Your task to perform on an android device: add a contact Image 0: 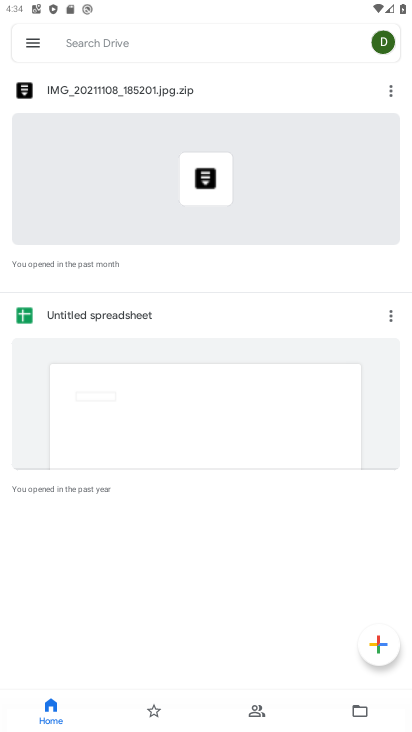
Step 0: press home button
Your task to perform on an android device: add a contact Image 1: 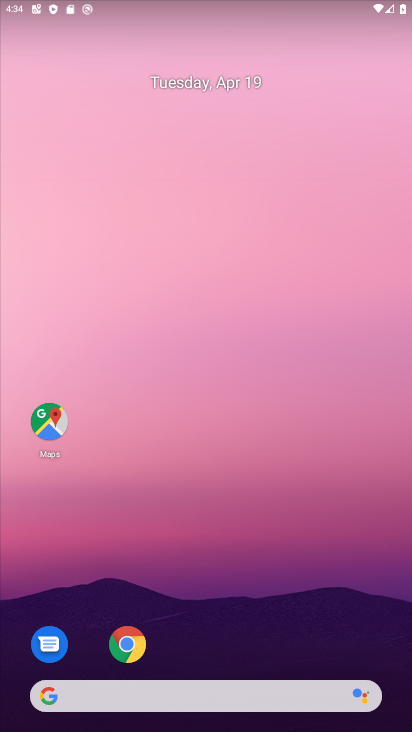
Step 1: drag from (241, 413) to (279, 248)
Your task to perform on an android device: add a contact Image 2: 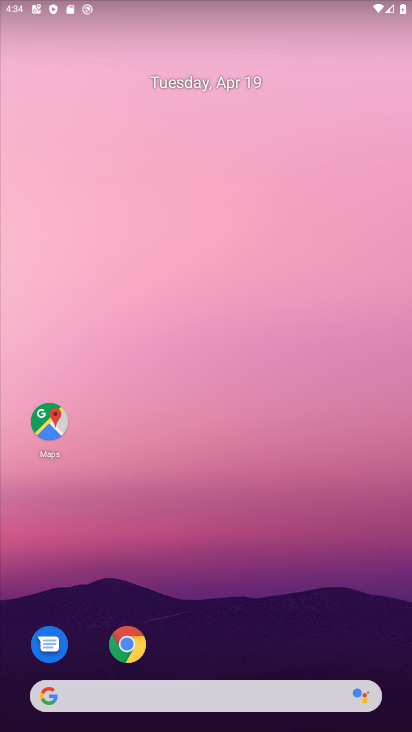
Step 2: drag from (297, 631) to (335, 32)
Your task to perform on an android device: add a contact Image 3: 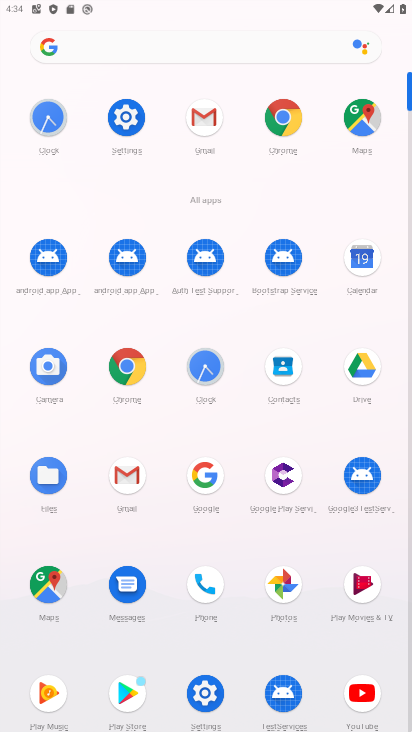
Step 3: click (285, 365)
Your task to perform on an android device: add a contact Image 4: 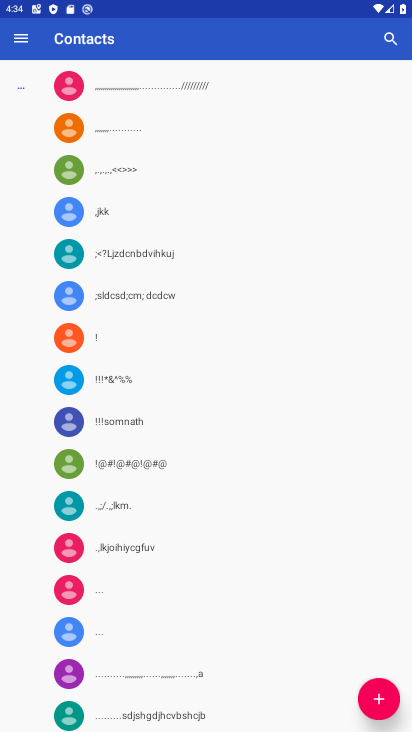
Step 4: click (386, 697)
Your task to perform on an android device: add a contact Image 5: 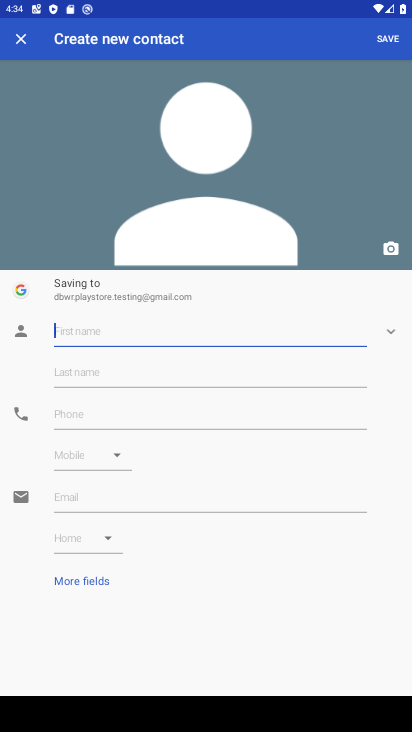
Step 5: click (144, 330)
Your task to perform on an android device: add a contact Image 6: 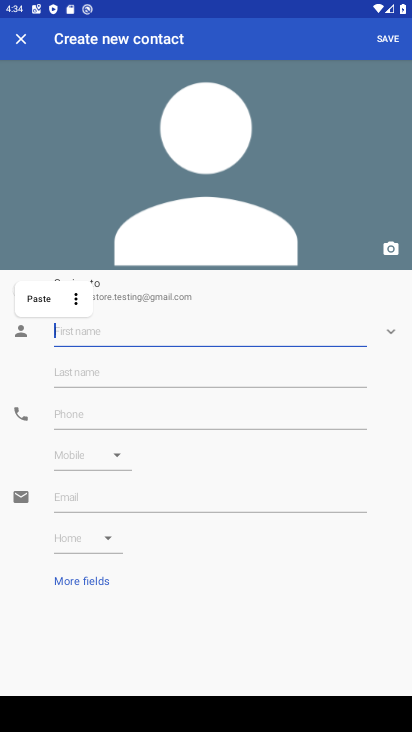
Step 6: type "ruhi"
Your task to perform on an android device: add a contact Image 7: 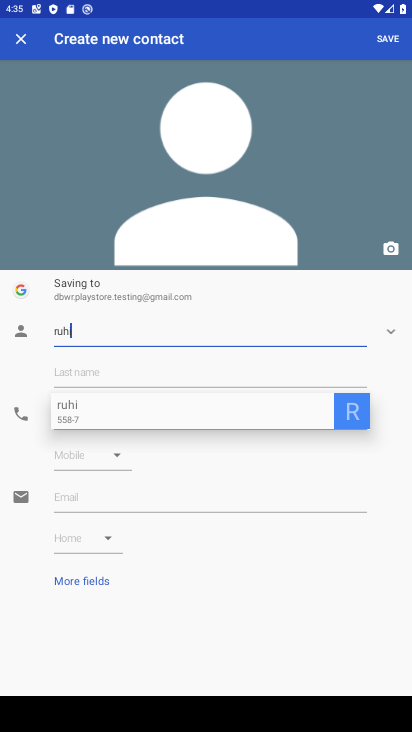
Step 7: click (222, 469)
Your task to perform on an android device: add a contact Image 8: 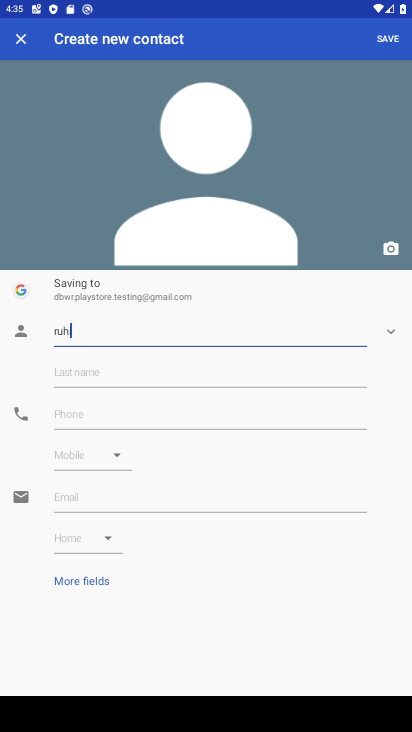
Step 8: click (107, 419)
Your task to perform on an android device: add a contact Image 9: 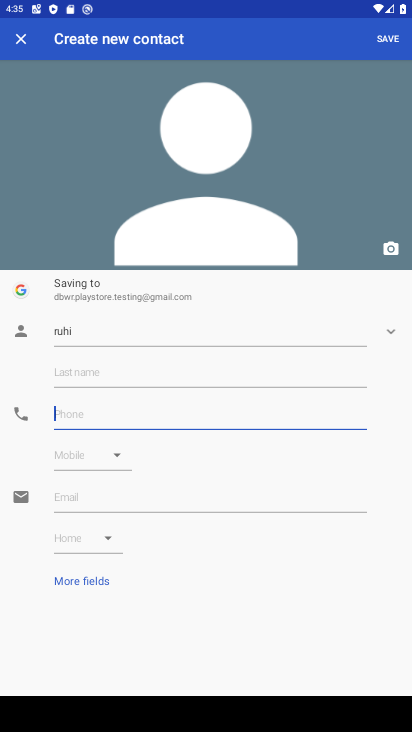
Step 9: type "9878967567"
Your task to perform on an android device: add a contact Image 10: 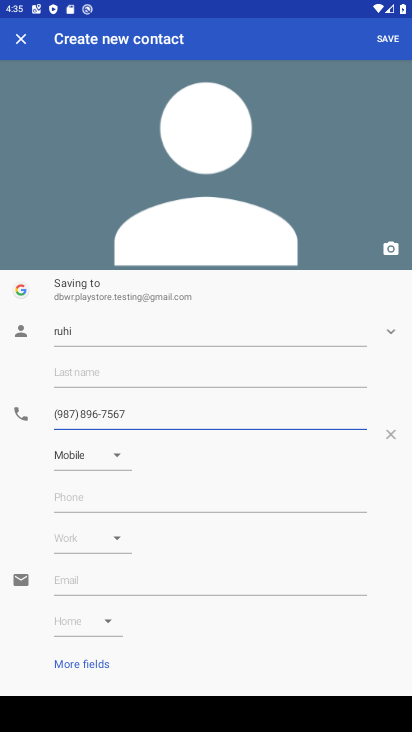
Step 10: click (388, 45)
Your task to perform on an android device: add a contact Image 11: 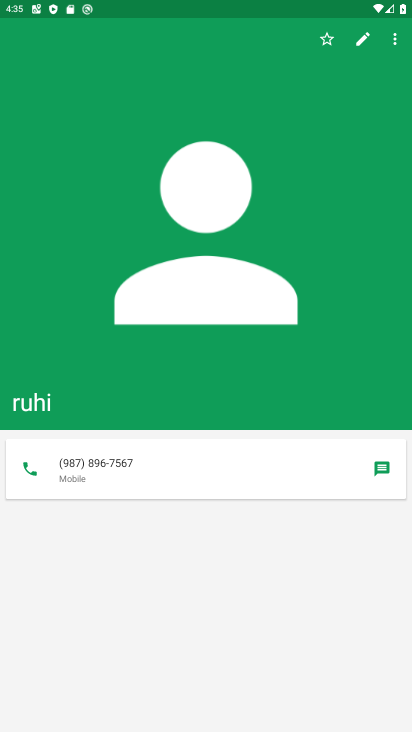
Step 11: task complete